Your task to perform on an android device: Go to Android settings Image 0: 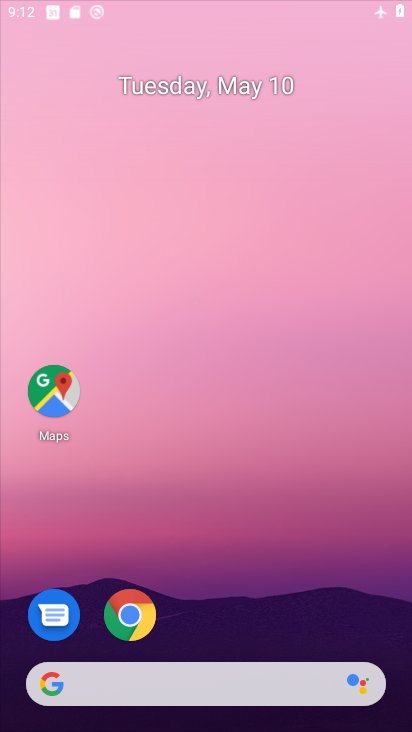
Step 0: drag from (226, 654) to (225, 131)
Your task to perform on an android device: Go to Android settings Image 1: 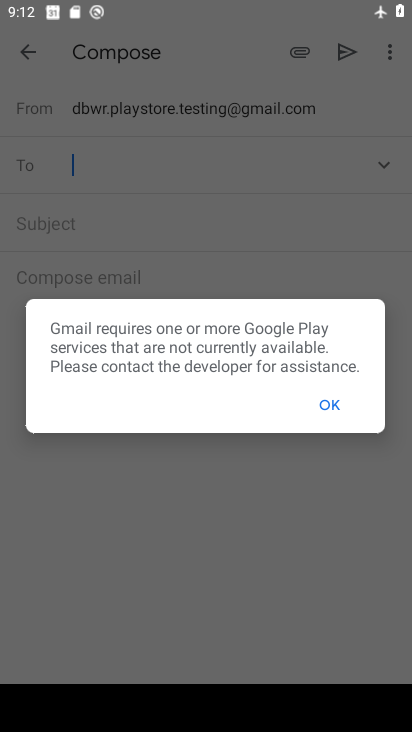
Step 1: press home button
Your task to perform on an android device: Go to Android settings Image 2: 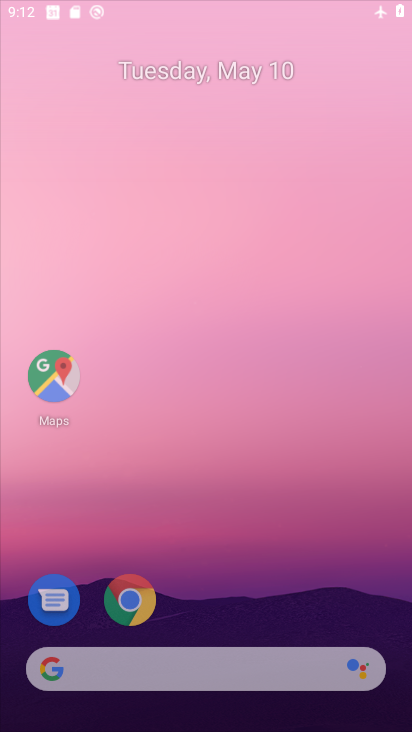
Step 2: drag from (203, 566) to (411, 248)
Your task to perform on an android device: Go to Android settings Image 3: 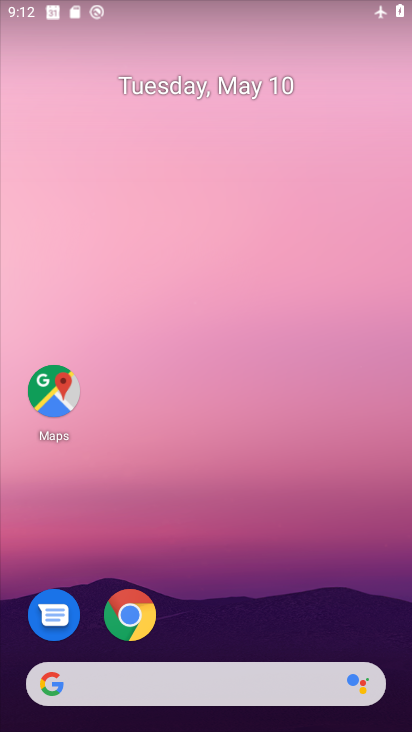
Step 3: drag from (217, 595) to (210, 85)
Your task to perform on an android device: Go to Android settings Image 4: 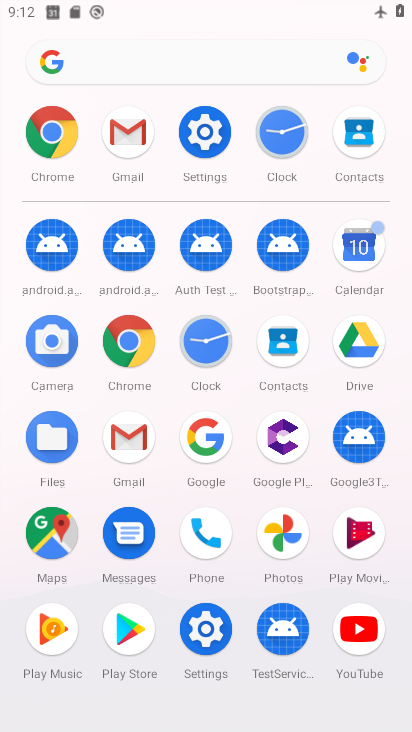
Step 4: click (198, 142)
Your task to perform on an android device: Go to Android settings Image 5: 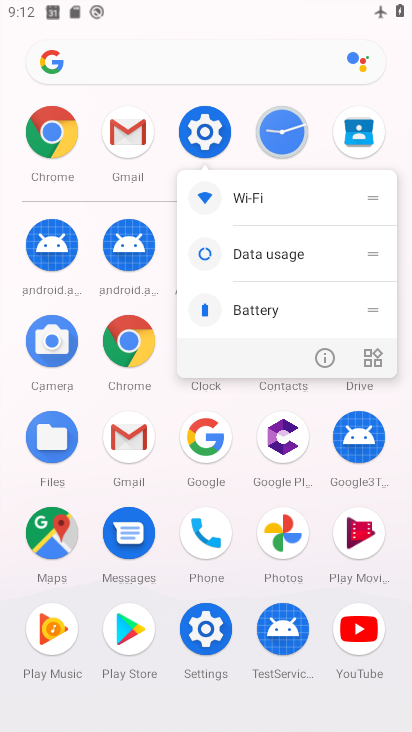
Step 5: click (314, 362)
Your task to perform on an android device: Go to Android settings Image 6: 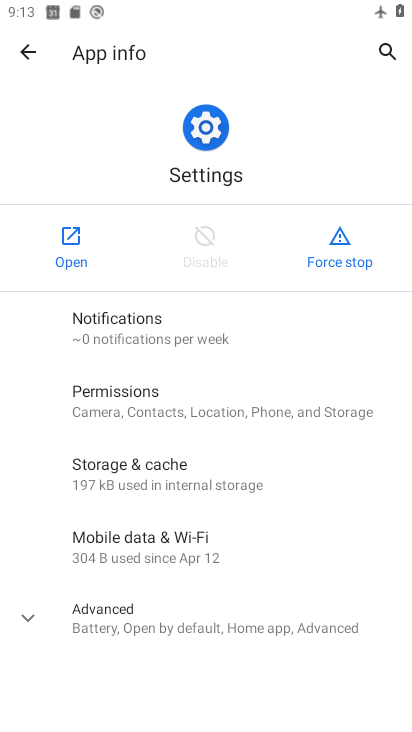
Step 6: click (69, 244)
Your task to perform on an android device: Go to Android settings Image 7: 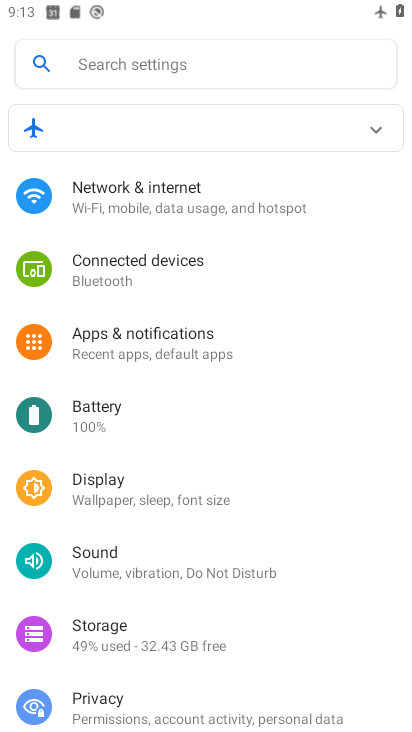
Step 7: drag from (171, 544) to (179, 228)
Your task to perform on an android device: Go to Android settings Image 8: 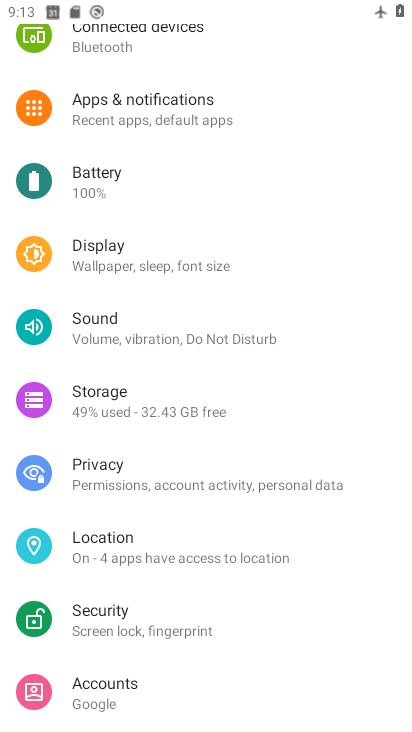
Step 8: drag from (130, 650) to (161, 320)
Your task to perform on an android device: Go to Android settings Image 9: 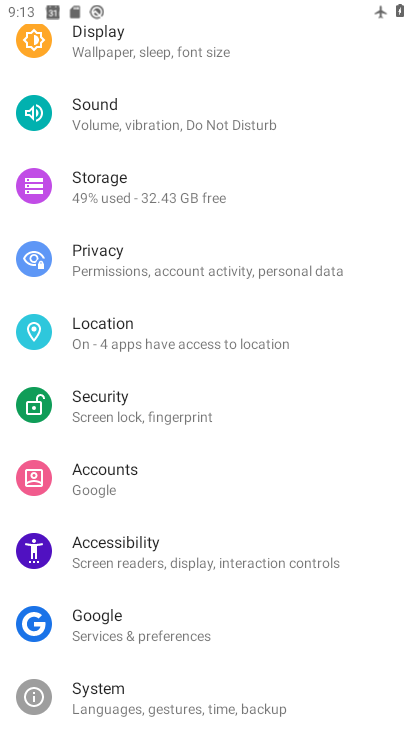
Step 9: drag from (156, 695) to (220, 276)
Your task to perform on an android device: Go to Android settings Image 10: 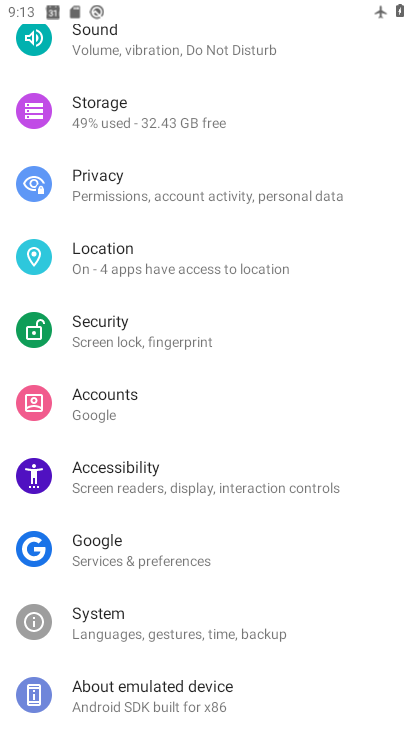
Step 10: click (134, 686)
Your task to perform on an android device: Go to Android settings Image 11: 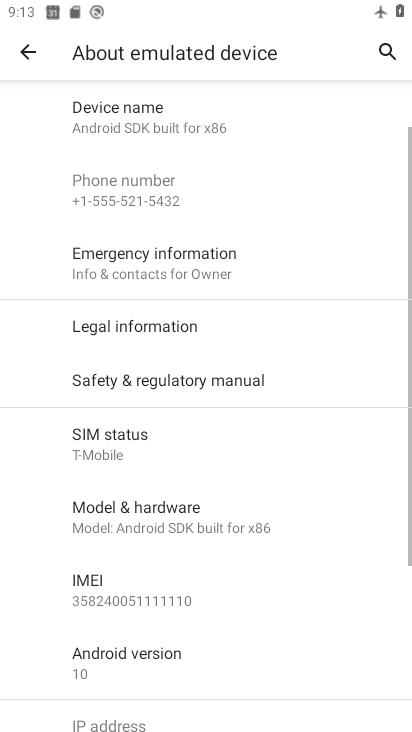
Step 11: task complete